Your task to perform on an android device: toggle location history Image 0: 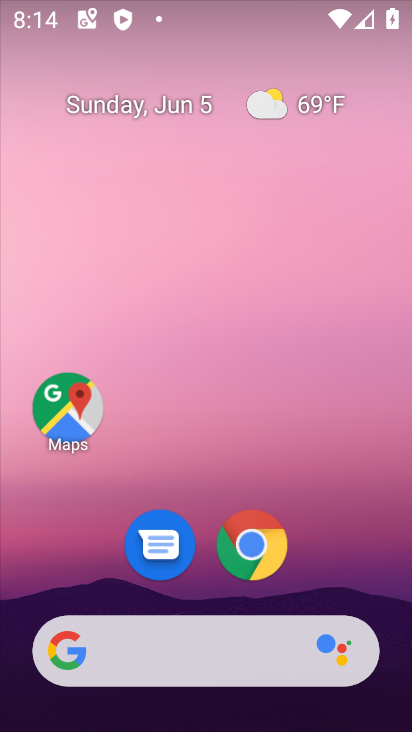
Step 0: drag from (354, 580) to (357, 222)
Your task to perform on an android device: toggle location history Image 1: 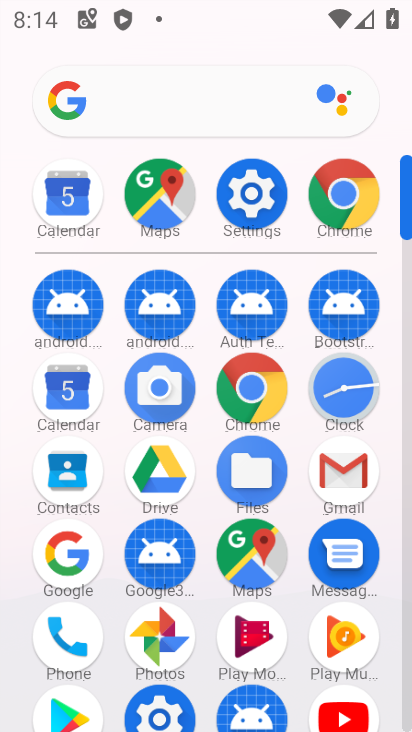
Step 1: click (260, 218)
Your task to perform on an android device: toggle location history Image 2: 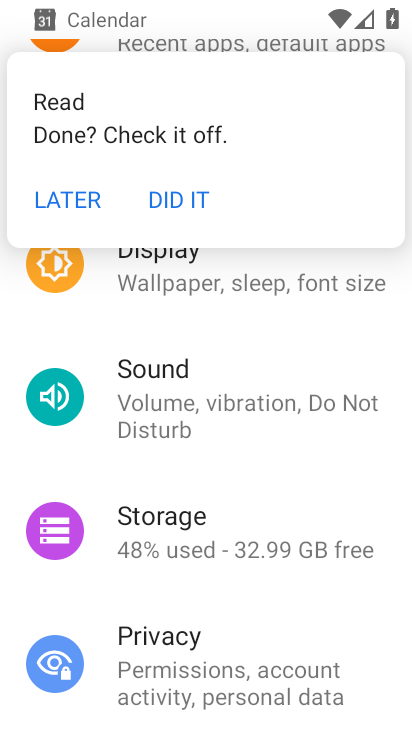
Step 2: drag from (370, 506) to (375, 422)
Your task to perform on an android device: toggle location history Image 3: 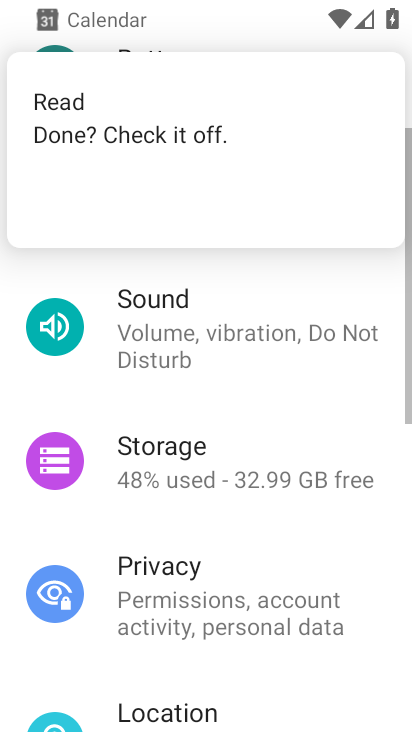
Step 3: drag from (364, 539) to (367, 435)
Your task to perform on an android device: toggle location history Image 4: 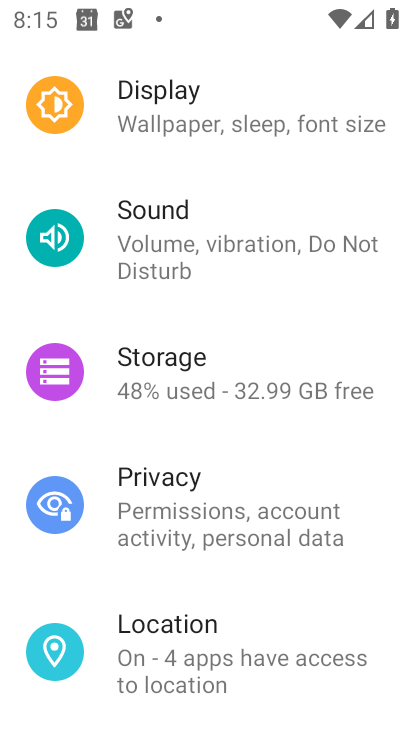
Step 4: drag from (370, 550) to (365, 458)
Your task to perform on an android device: toggle location history Image 5: 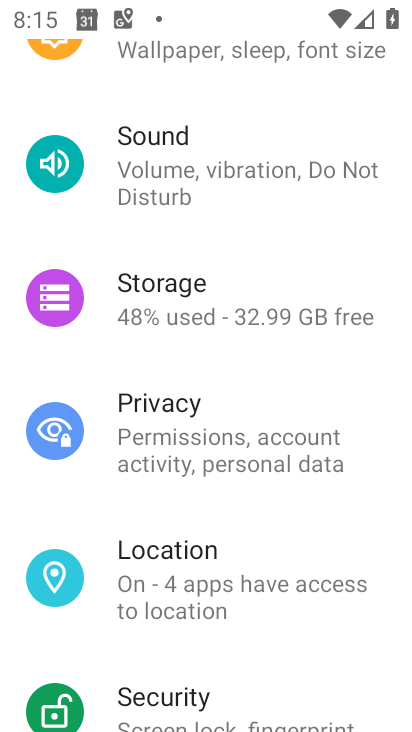
Step 5: drag from (370, 600) to (380, 477)
Your task to perform on an android device: toggle location history Image 6: 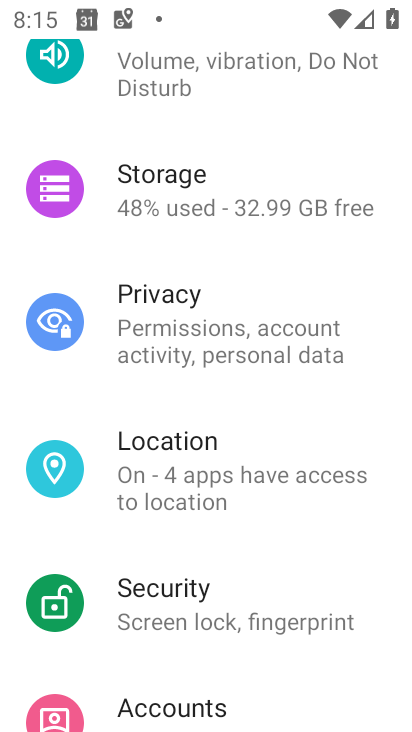
Step 6: drag from (382, 575) to (378, 463)
Your task to perform on an android device: toggle location history Image 7: 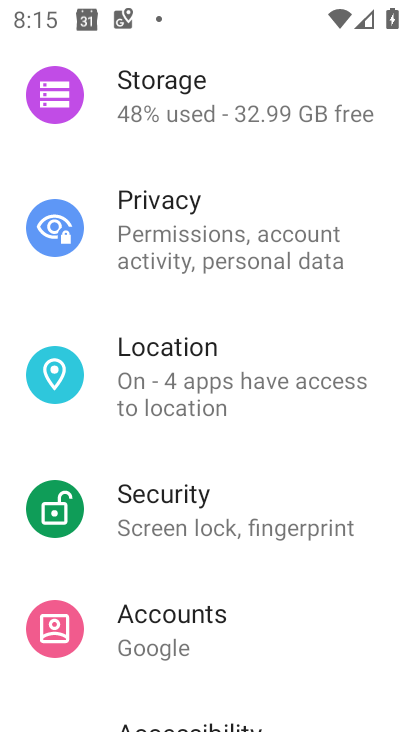
Step 7: drag from (356, 610) to (370, 505)
Your task to perform on an android device: toggle location history Image 8: 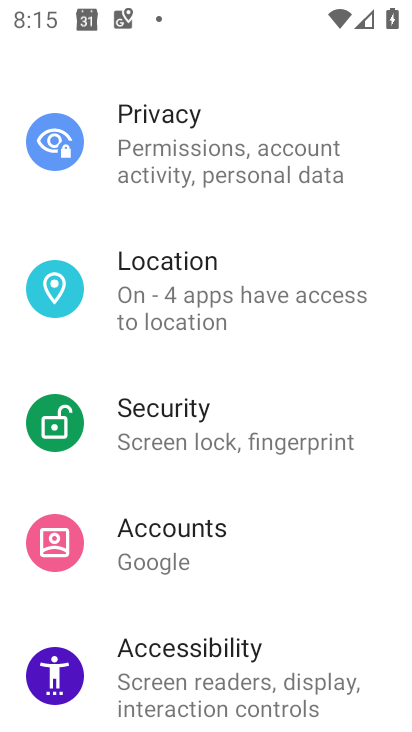
Step 8: click (280, 322)
Your task to perform on an android device: toggle location history Image 9: 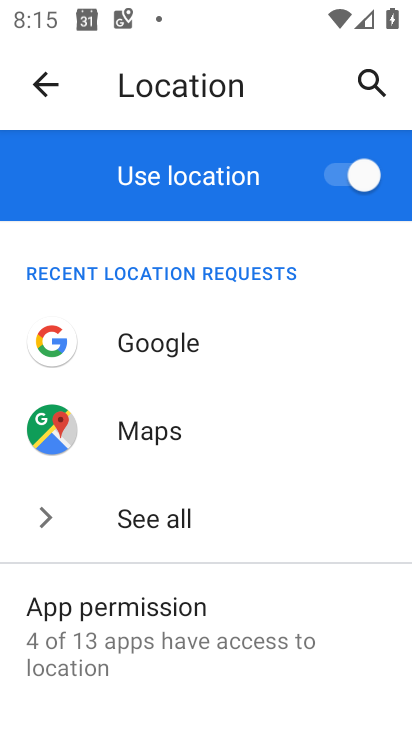
Step 9: drag from (317, 522) to (320, 420)
Your task to perform on an android device: toggle location history Image 10: 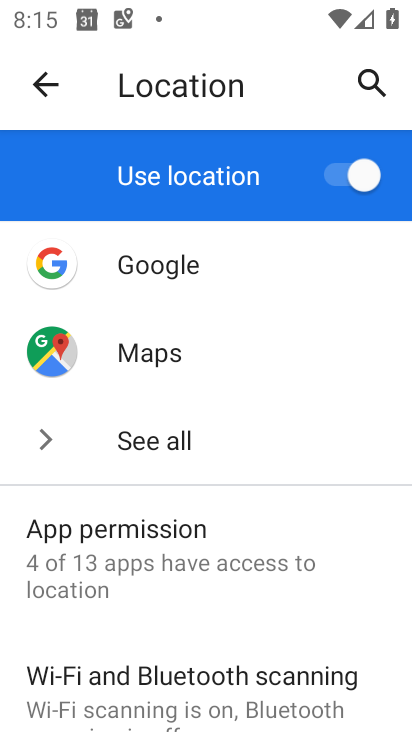
Step 10: drag from (332, 538) to (335, 449)
Your task to perform on an android device: toggle location history Image 11: 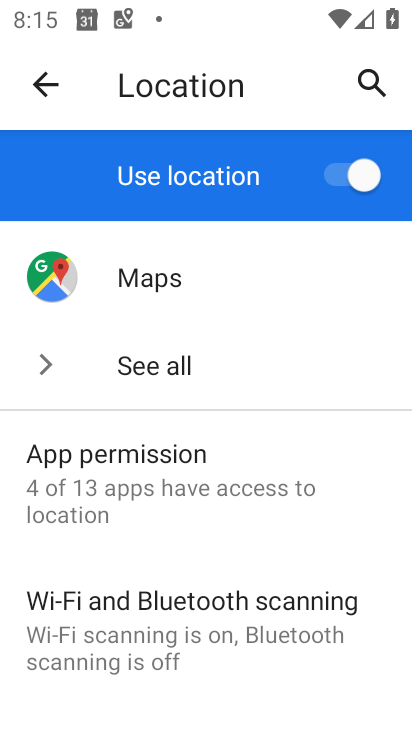
Step 11: drag from (348, 542) to (351, 460)
Your task to perform on an android device: toggle location history Image 12: 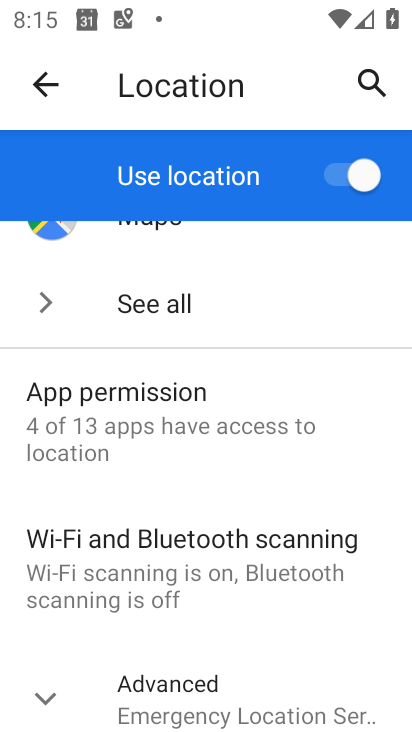
Step 12: drag from (357, 597) to (369, 470)
Your task to perform on an android device: toggle location history Image 13: 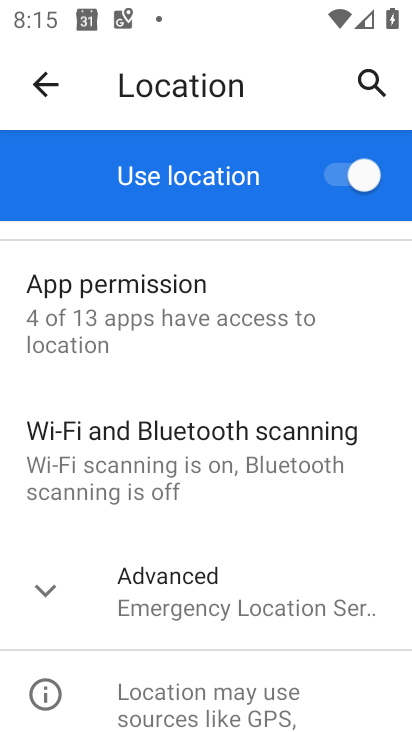
Step 13: click (323, 605)
Your task to perform on an android device: toggle location history Image 14: 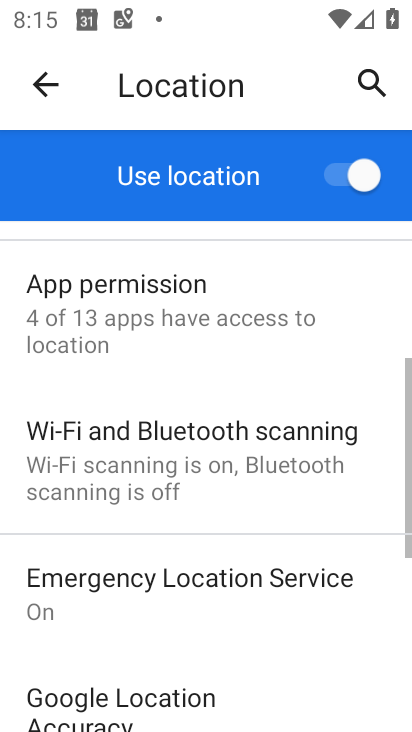
Step 14: drag from (322, 605) to (322, 490)
Your task to perform on an android device: toggle location history Image 15: 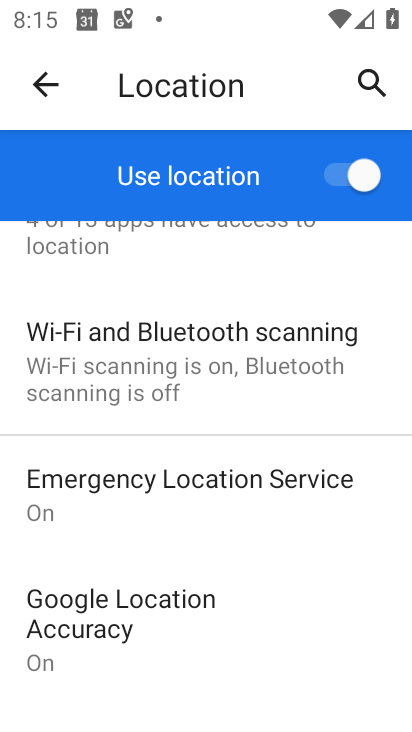
Step 15: drag from (315, 603) to (322, 503)
Your task to perform on an android device: toggle location history Image 16: 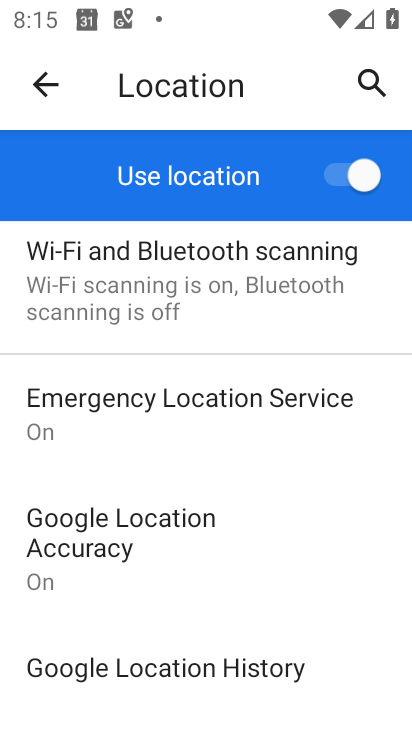
Step 16: drag from (329, 607) to (324, 491)
Your task to perform on an android device: toggle location history Image 17: 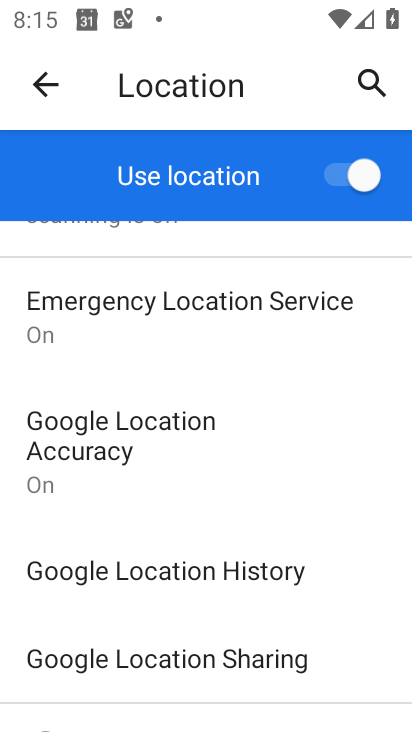
Step 17: click (280, 588)
Your task to perform on an android device: toggle location history Image 18: 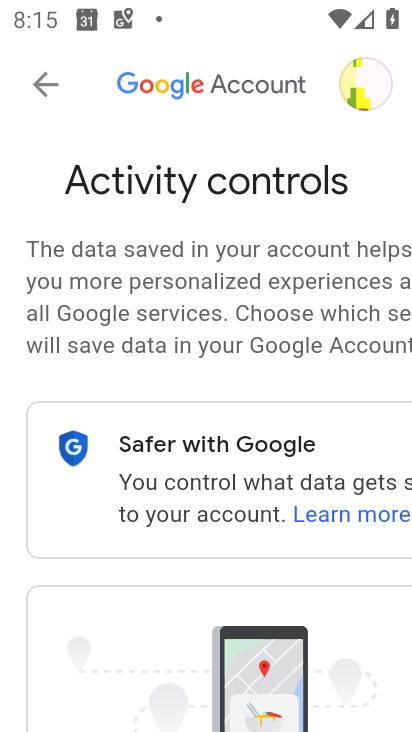
Step 18: drag from (289, 600) to (272, 342)
Your task to perform on an android device: toggle location history Image 19: 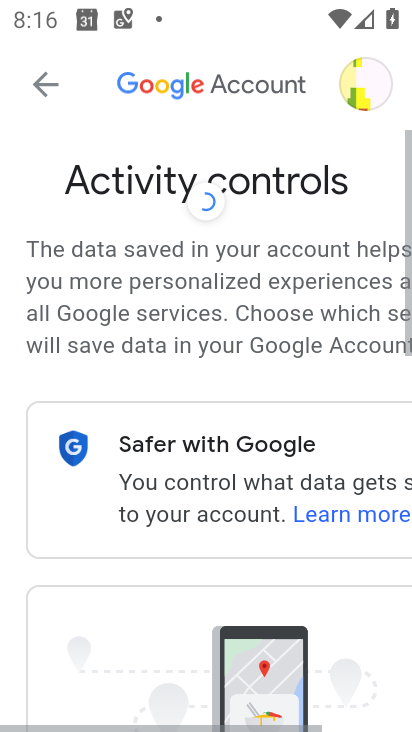
Step 19: drag from (267, 616) to (243, 266)
Your task to perform on an android device: toggle location history Image 20: 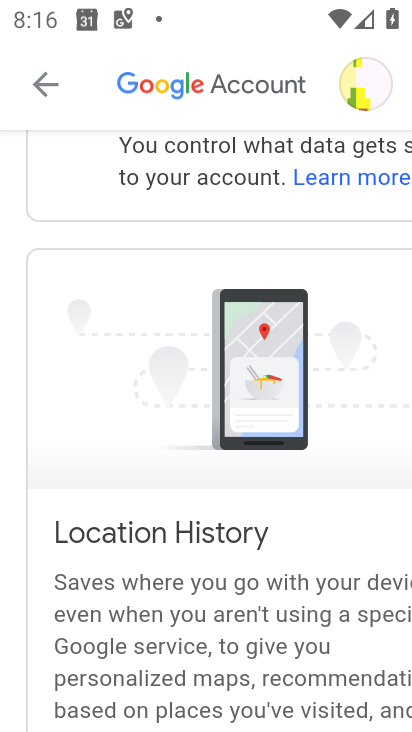
Step 20: drag from (225, 594) to (221, 328)
Your task to perform on an android device: toggle location history Image 21: 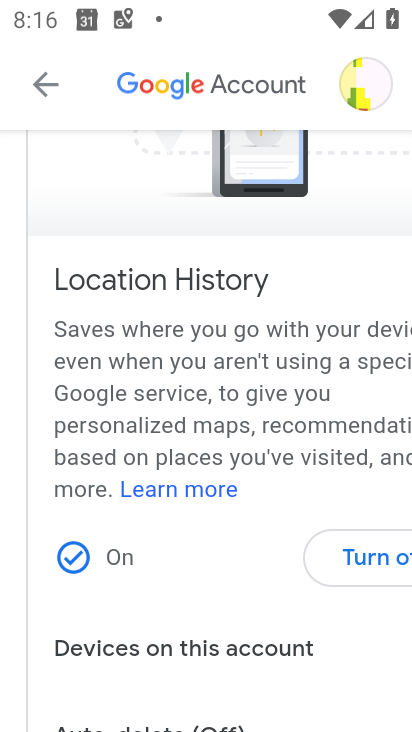
Step 21: click (386, 542)
Your task to perform on an android device: toggle location history Image 22: 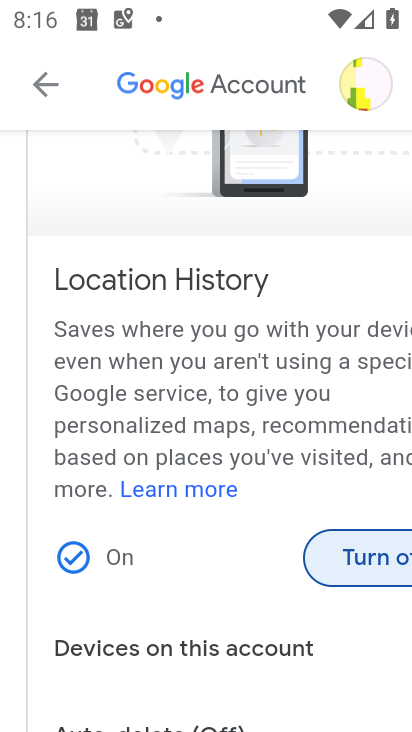
Step 22: click (352, 560)
Your task to perform on an android device: toggle location history Image 23: 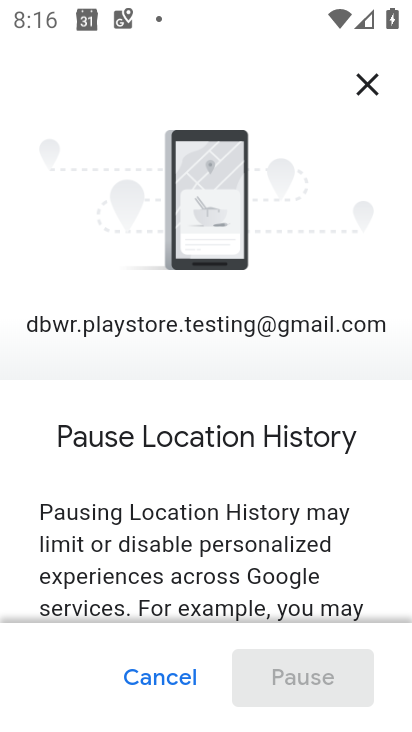
Step 23: drag from (245, 532) to (233, 412)
Your task to perform on an android device: toggle location history Image 24: 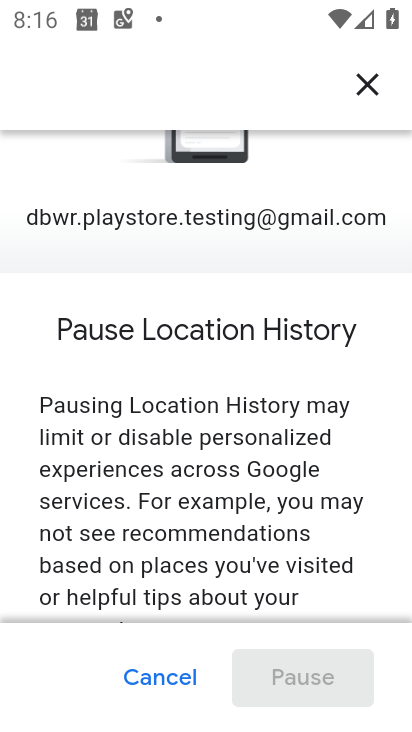
Step 24: drag from (226, 528) to (241, 388)
Your task to perform on an android device: toggle location history Image 25: 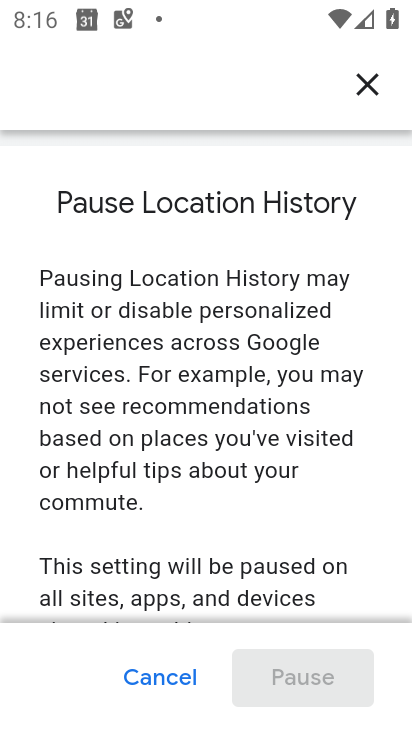
Step 25: drag from (233, 525) to (238, 441)
Your task to perform on an android device: toggle location history Image 26: 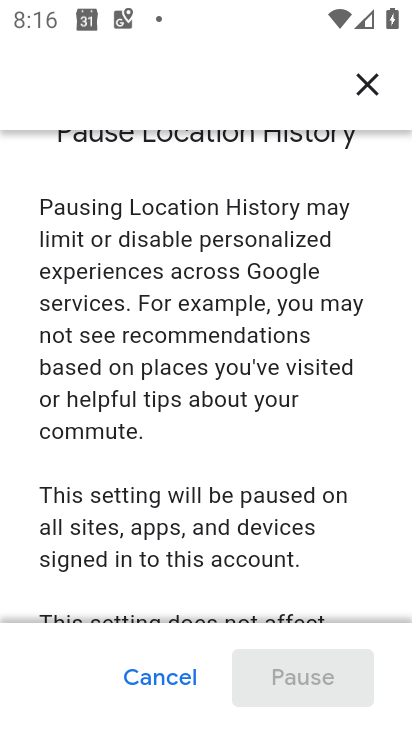
Step 26: drag from (226, 549) to (219, 443)
Your task to perform on an android device: toggle location history Image 27: 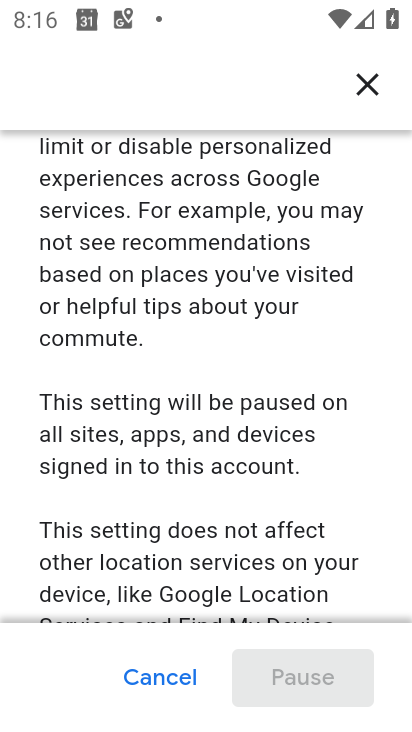
Step 27: drag from (209, 555) to (213, 431)
Your task to perform on an android device: toggle location history Image 28: 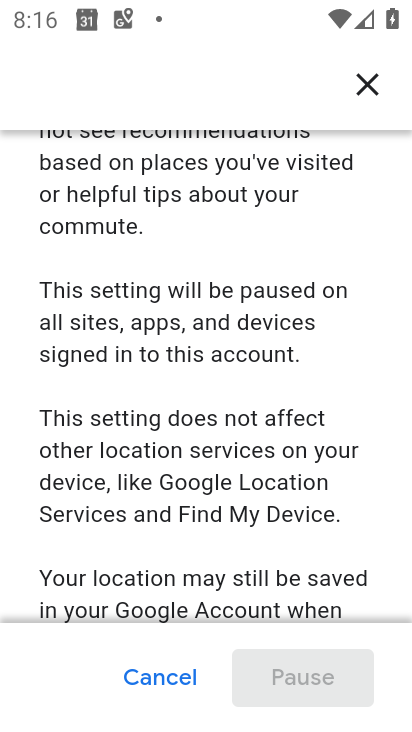
Step 28: drag from (204, 531) to (220, 397)
Your task to perform on an android device: toggle location history Image 29: 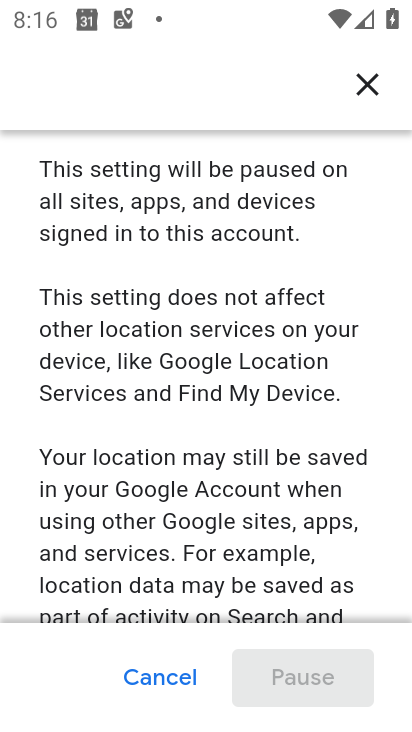
Step 29: drag from (221, 552) to (229, 426)
Your task to perform on an android device: toggle location history Image 30: 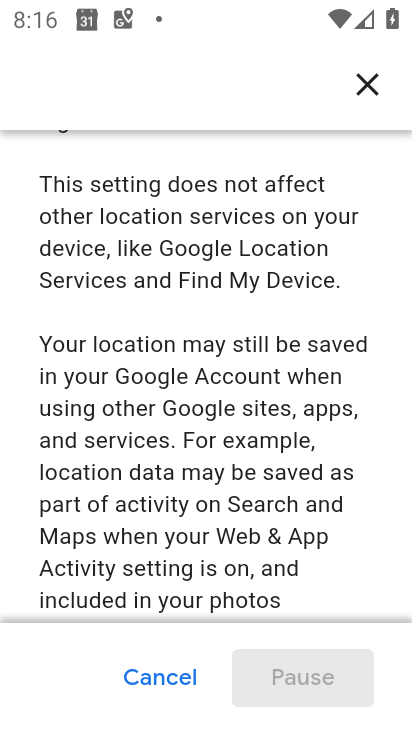
Step 30: drag from (222, 552) to (231, 395)
Your task to perform on an android device: toggle location history Image 31: 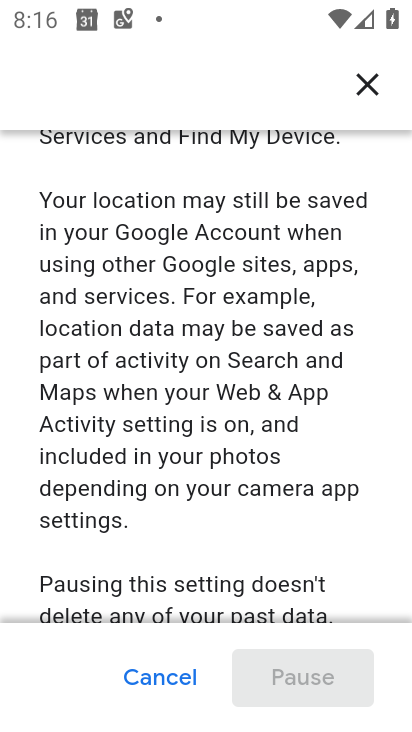
Step 31: drag from (274, 523) to (305, 362)
Your task to perform on an android device: toggle location history Image 32: 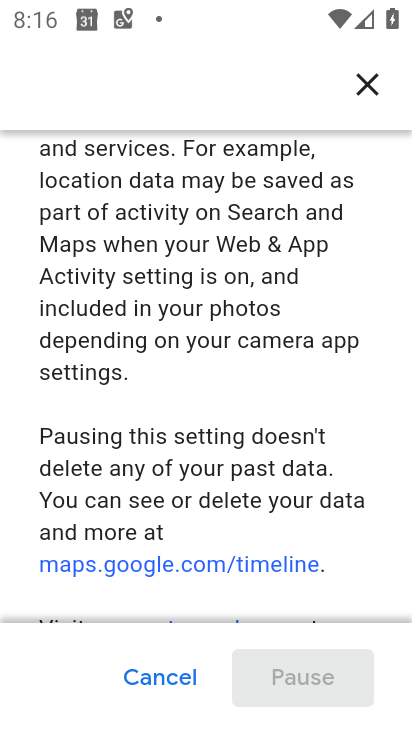
Step 32: drag from (312, 505) to (312, 293)
Your task to perform on an android device: toggle location history Image 33: 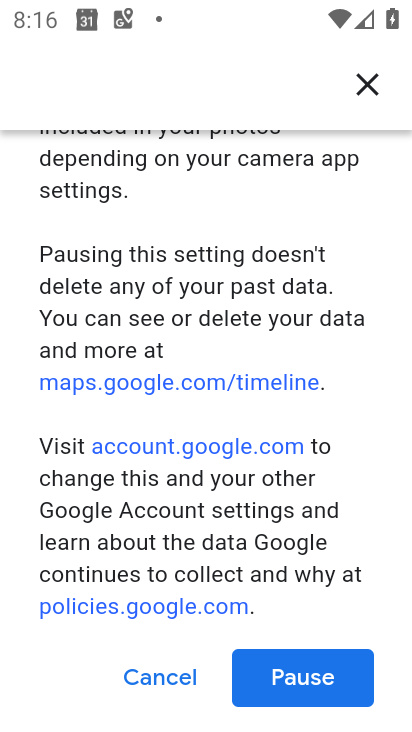
Step 33: click (296, 672)
Your task to perform on an android device: toggle location history Image 34: 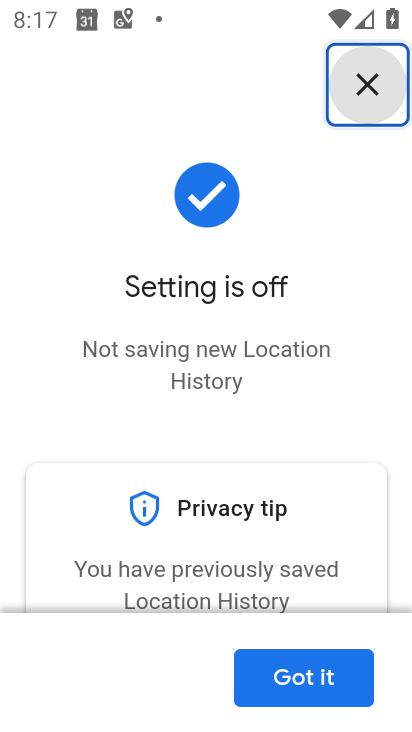
Step 34: task complete